Your task to perform on an android device: Open CNN.com Image 0: 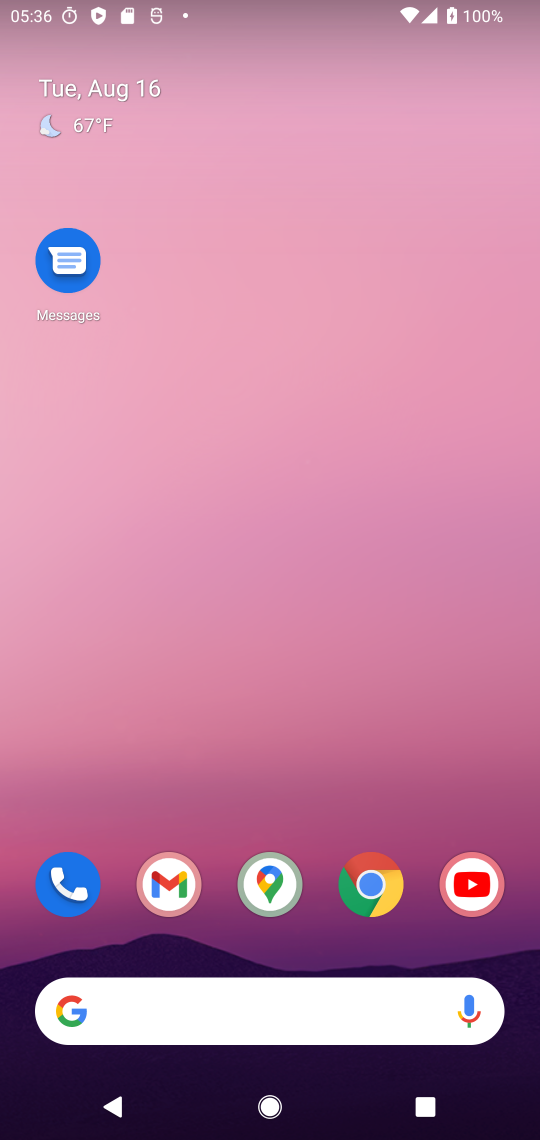
Step 0: click (131, 1019)
Your task to perform on an android device: Open CNN.com Image 1: 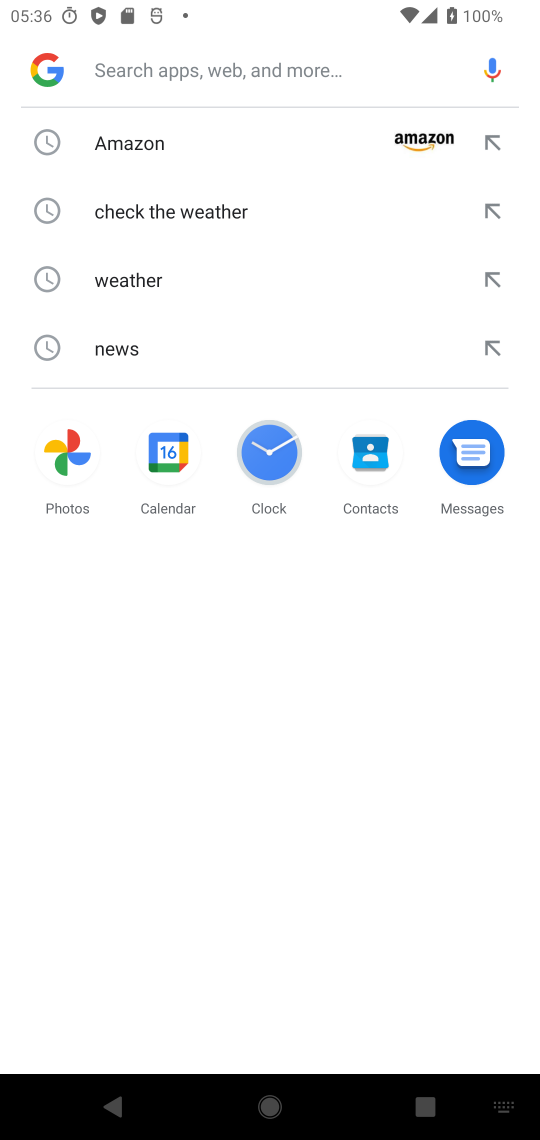
Step 1: type "CNN.com"
Your task to perform on an android device: Open CNN.com Image 2: 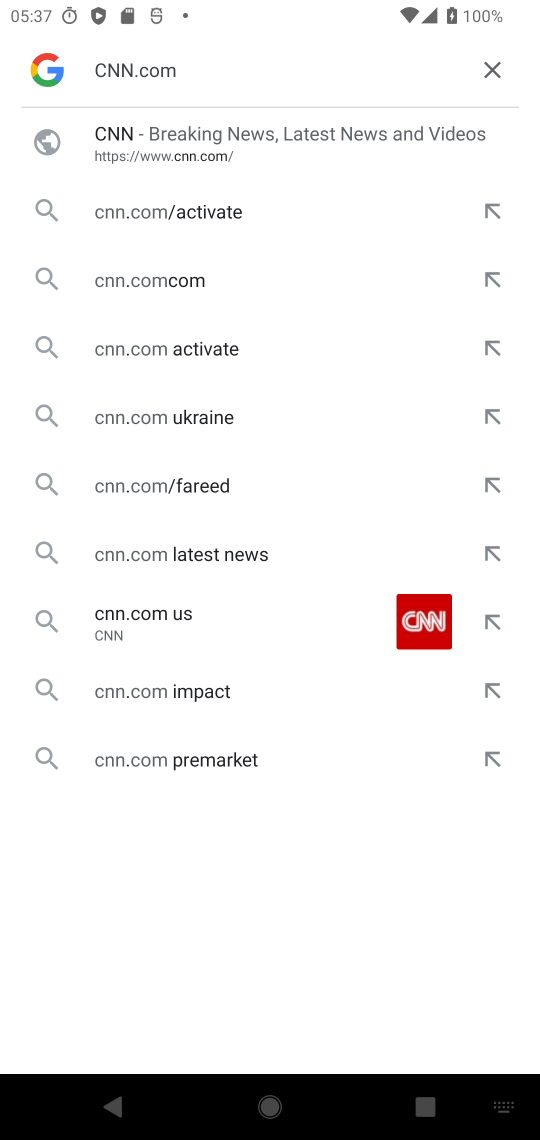
Step 2: click (118, 136)
Your task to perform on an android device: Open CNN.com Image 3: 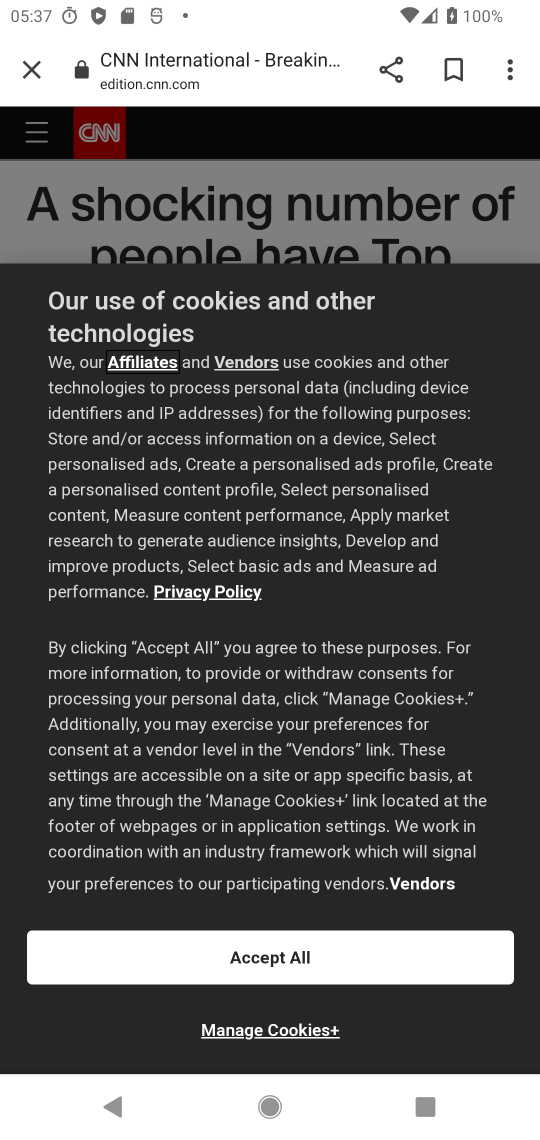
Step 3: task complete